Your task to perform on an android device: open wifi settings Image 0: 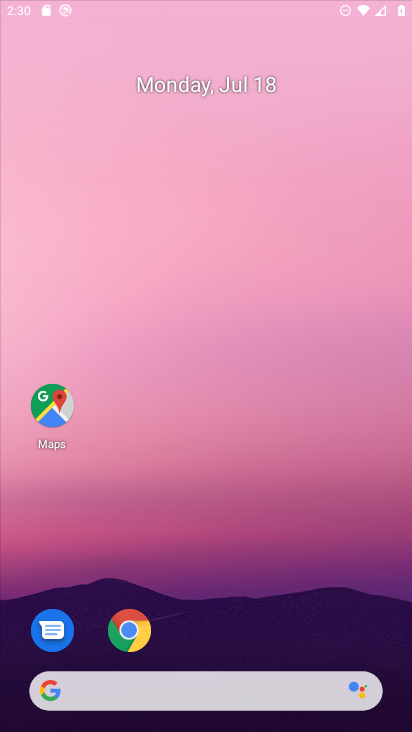
Step 0: press home button
Your task to perform on an android device: open wifi settings Image 1: 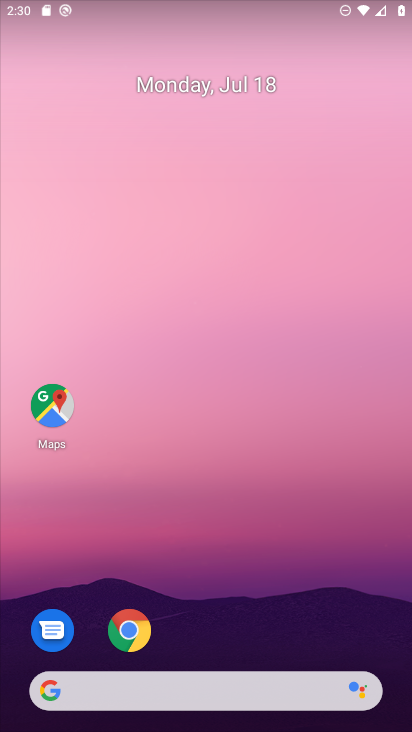
Step 1: drag from (219, 645) to (296, 6)
Your task to perform on an android device: open wifi settings Image 2: 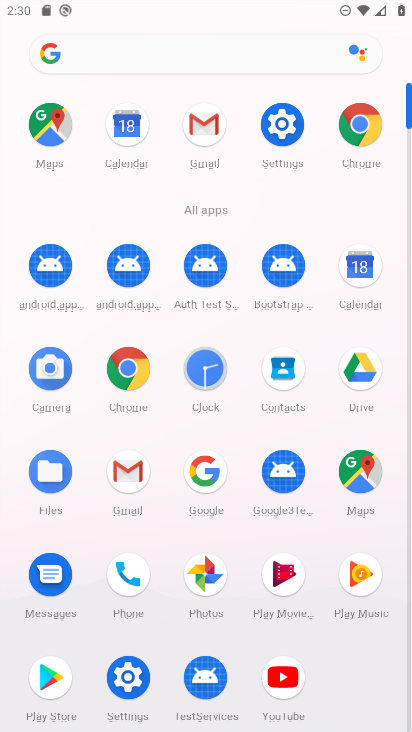
Step 2: click (275, 128)
Your task to perform on an android device: open wifi settings Image 3: 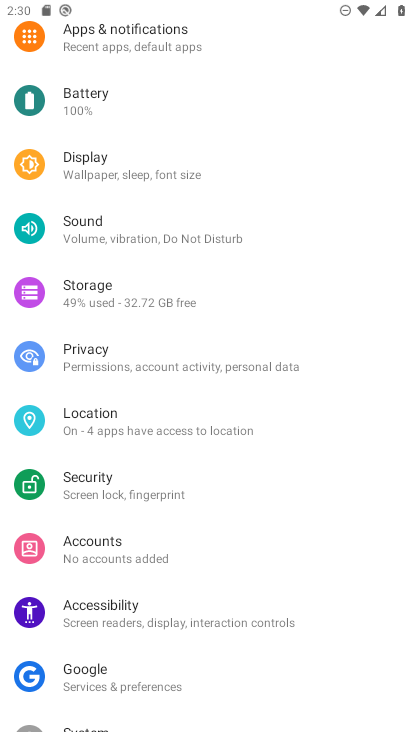
Step 3: drag from (191, 85) to (220, 714)
Your task to perform on an android device: open wifi settings Image 4: 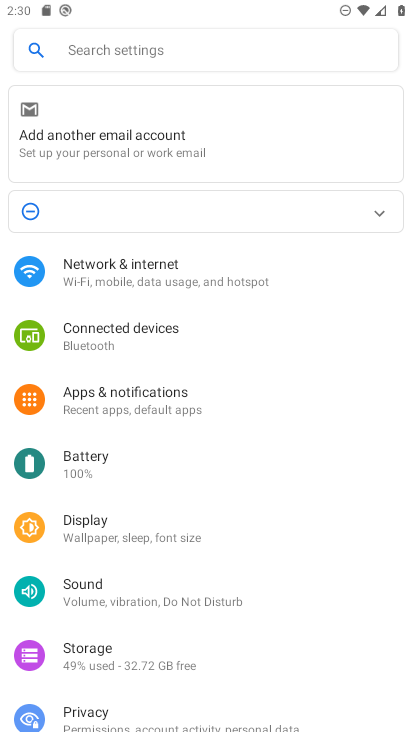
Step 4: click (104, 275)
Your task to perform on an android device: open wifi settings Image 5: 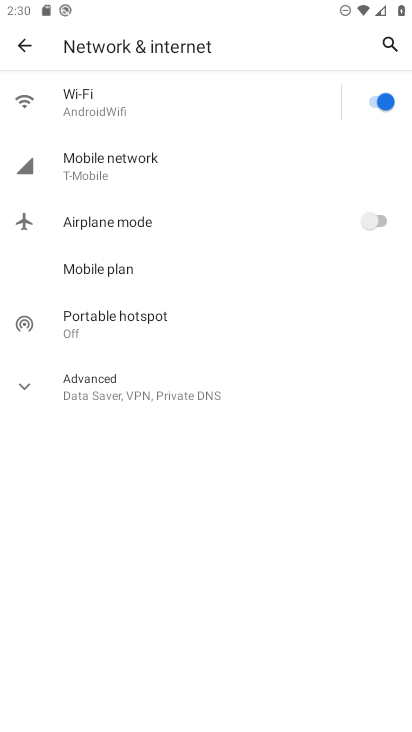
Step 5: click (74, 85)
Your task to perform on an android device: open wifi settings Image 6: 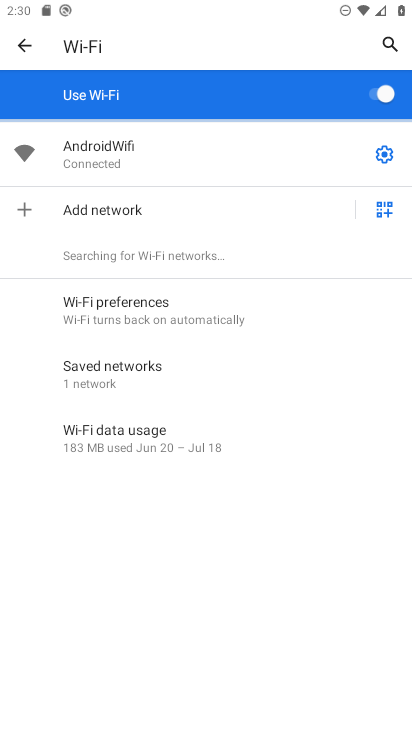
Step 6: task complete